Your task to perform on an android device: Open display settings Image 0: 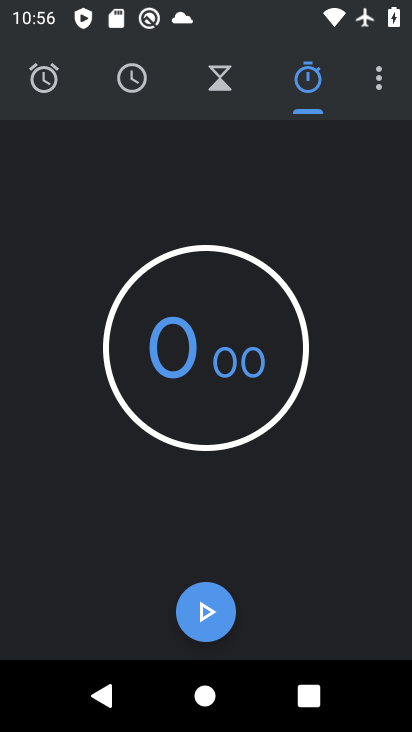
Step 0: press back button
Your task to perform on an android device: Open display settings Image 1: 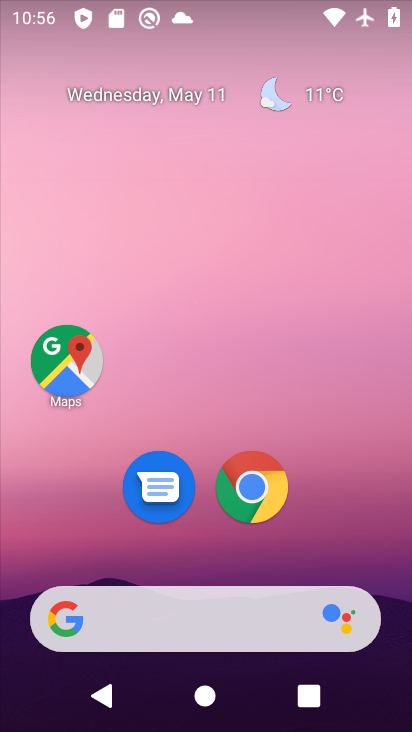
Step 1: drag from (337, 514) to (233, 5)
Your task to perform on an android device: Open display settings Image 2: 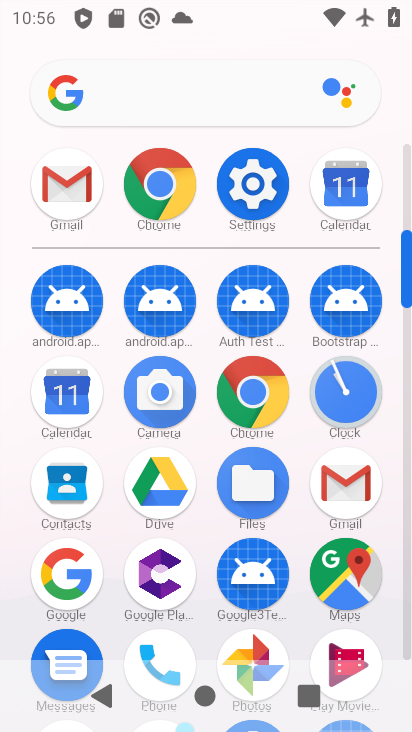
Step 2: click (254, 181)
Your task to perform on an android device: Open display settings Image 3: 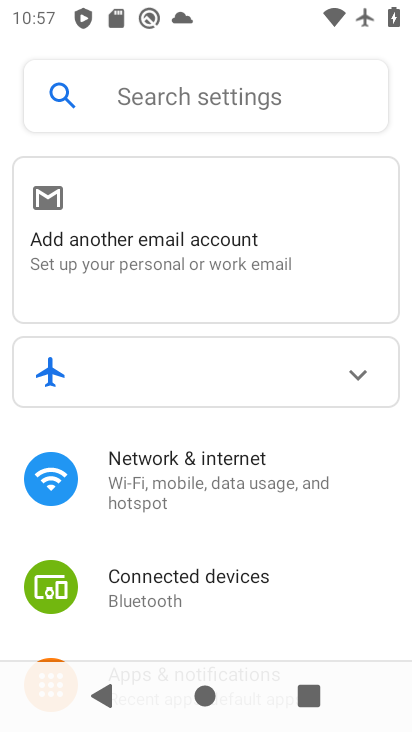
Step 3: drag from (294, 528) to (302, 142)
Your task to perform on an android device: Open display settings Image 4: 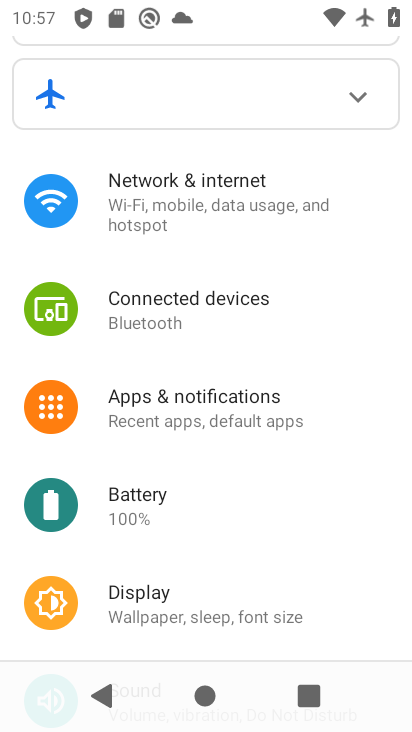
Step 4: click (163, 487)
Your task to perform on an android device: Open display settings Image 5: 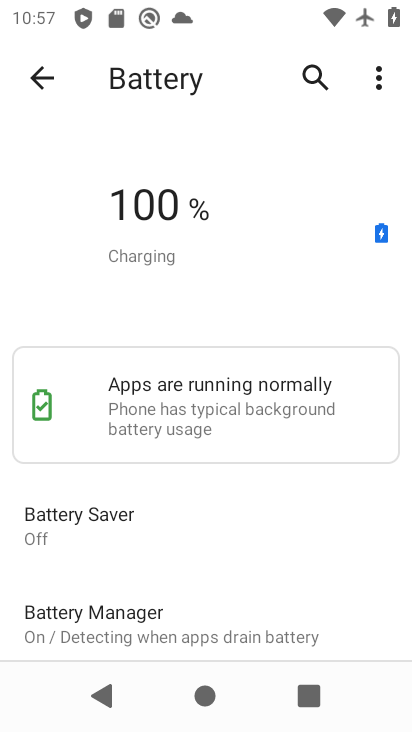
Step 5: click (46, 73)
Your task to perform on an android device: Open display settings Image 6: 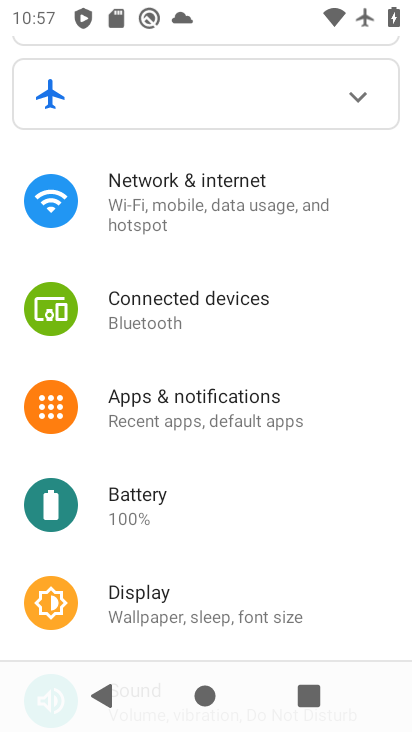
Step 6: drag from (283, 554) to (281, 239)
Your task to perform on an android device: Open display settings Image 7: 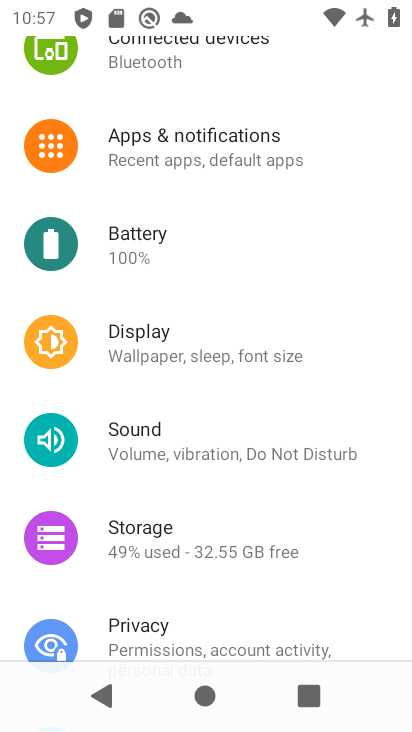
Step 7: click (167, 333)
Your task to perform on an android device: Open display settings Image 8: 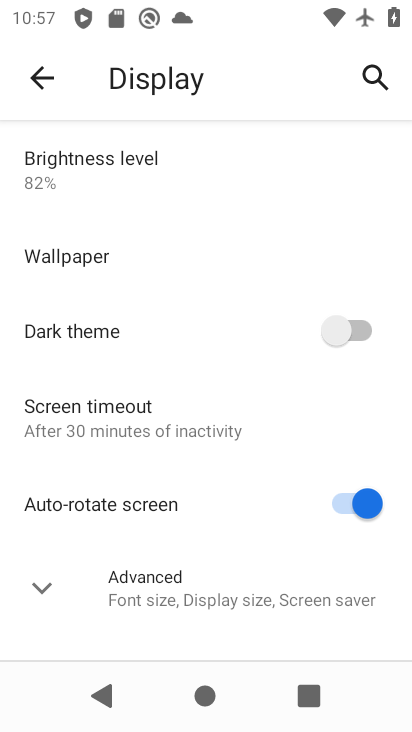
Step 8: drag from (168, 481) to (226, 145)
Your task to perform on an android device: Open display settings Image 9: 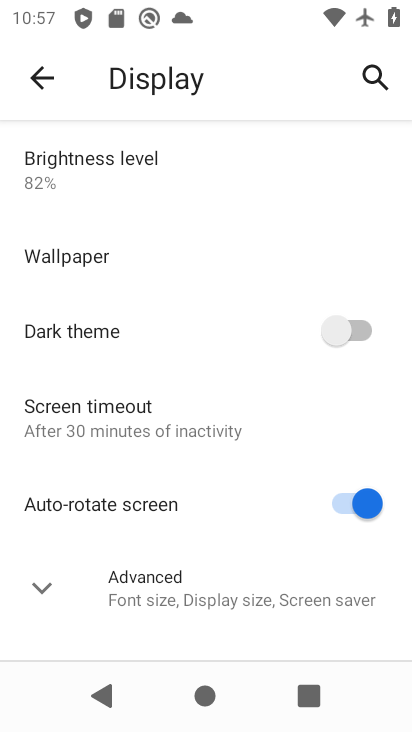
Step 9: click (50, 580)
Your task to perform on an android device: Open display settings Image 10: 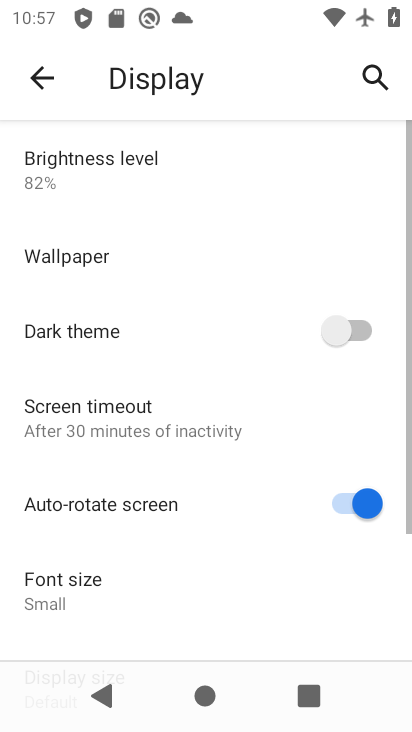
Step 10: task complete